Your task to perform on an android device: refresh tabs in the chrome app Image 0: 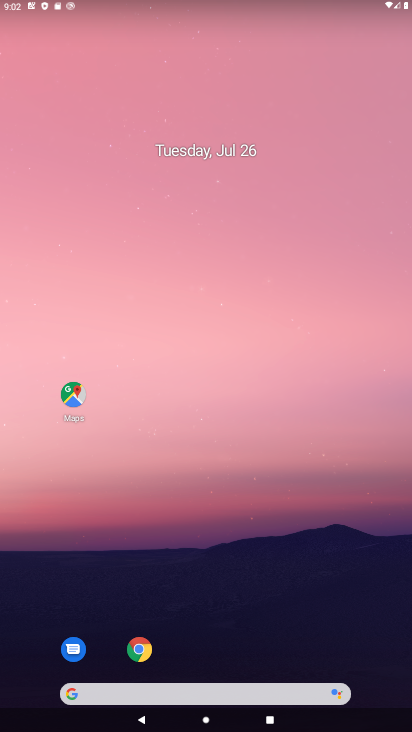
Step 0: drag from (269, 614) to (333, 86)
Your task to perform on an android device: refresh tabs in the chrome app Image 1: 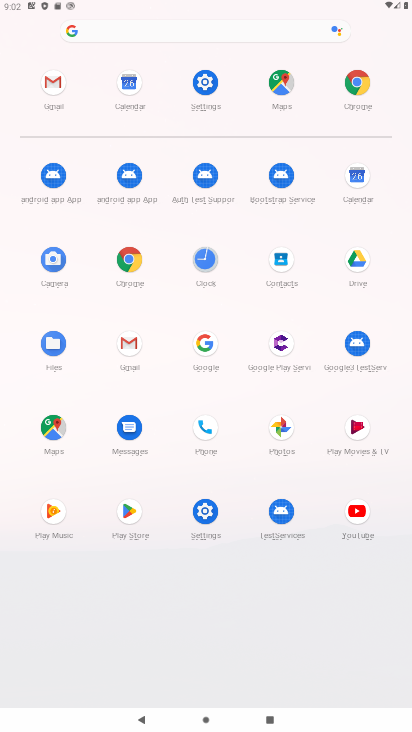
Step 1: click (141, 249)
Your task to perform on an android device: refresh tabs in the chrome app Image 2: 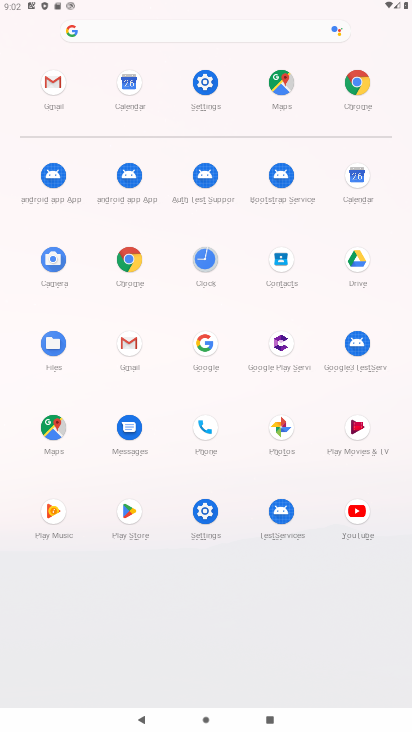
Step 2: click (140, 249)
Your task to perform on an android device: refresh tabs in the chrome app Image 3: 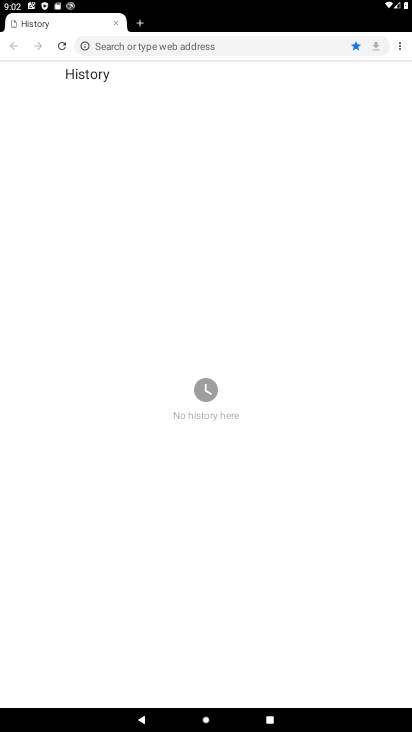
Step 3: click (62, 45)
Your task to perform on an android device: refresh tabs in the chrome app Image 4: 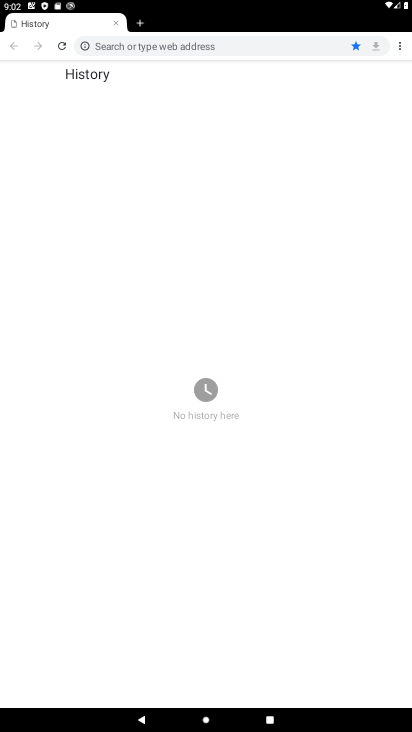
Step 4: click (62, 45)
Your task to perform on an android device: refresh tabs in the chrome app Image 5: 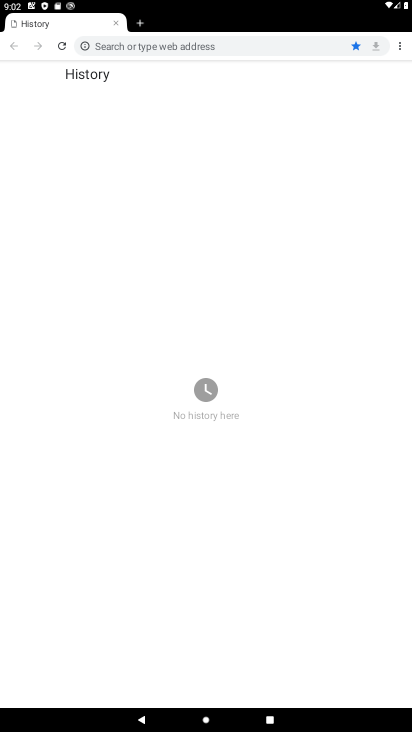
Step 5: task complete